Your task to perform on an android device: Search for sushi restaurants on Maps Image 0: 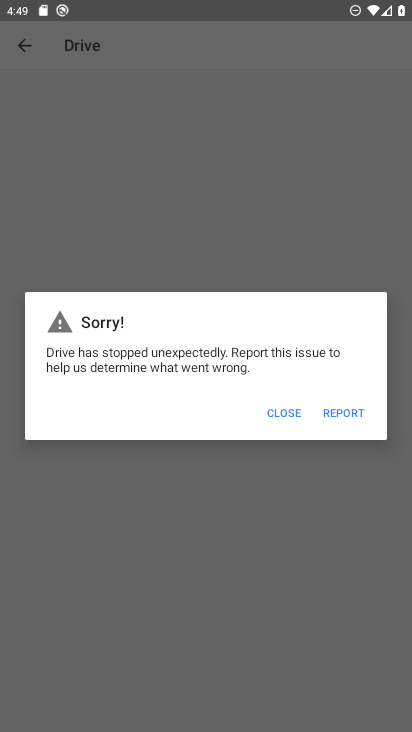
Step 0: press home button
Your task to perform on an android device: Search for sushi restaurants on Maps Image 1: 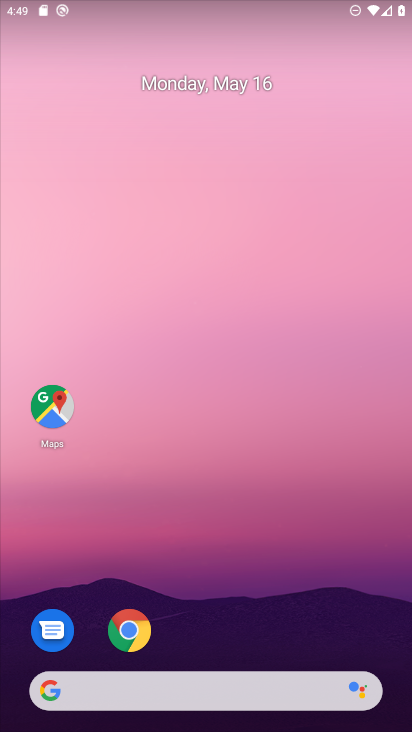
Step 1: click (43, 409)
Your task to perform on an android device: Search for sushi restaurants on Maps Image 2: 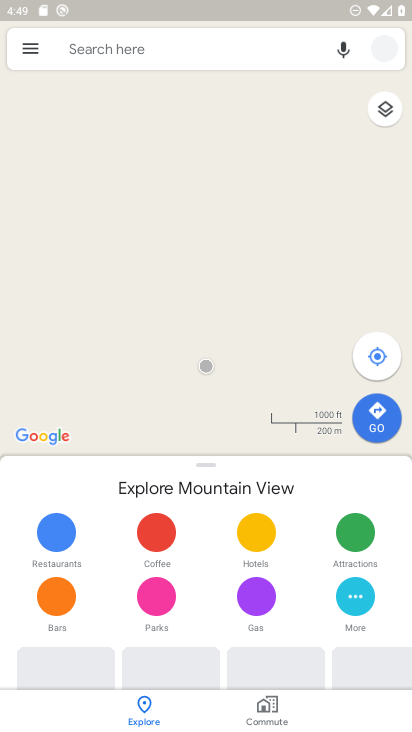
Step 2: click (74, 38)
Your task to perform on an android device: Search for sushi restaurants on Maps Image 3: 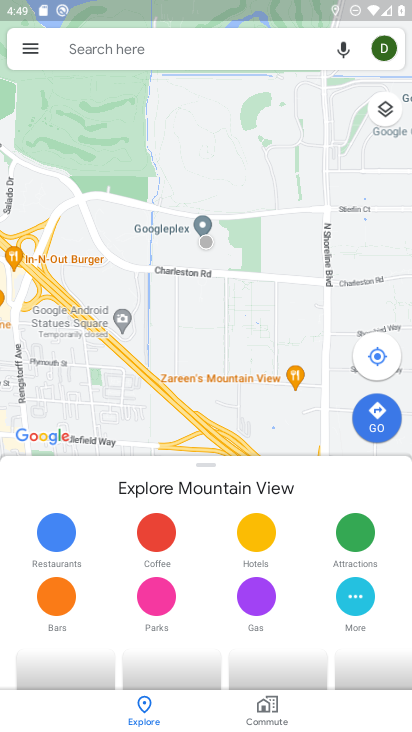
Step 3: click (74, 38)
Your task to perform on an android device: Search for sushi restaurants on Maps Image 4: 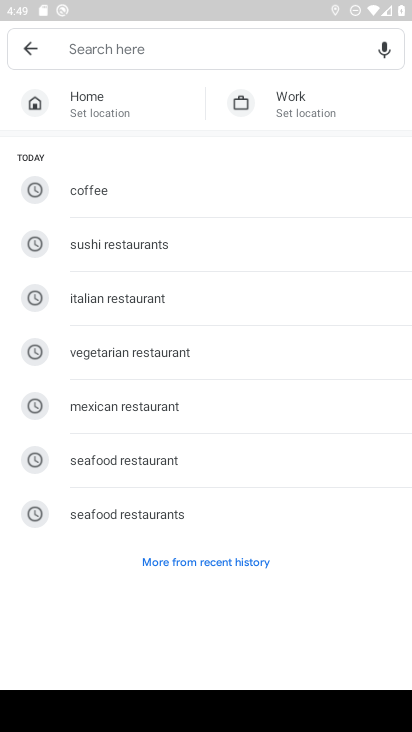
Step 4: type "sushi restaurants "
Your task to perform on an android device: Search for sushi restaurants on Maps Image 5: 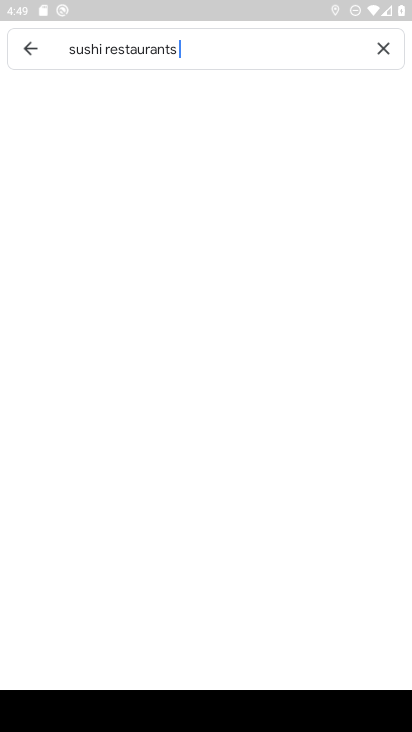
Step 5: type ""
Your task to perform on an android device: Search for sushi restaurants on Maps Image 6: 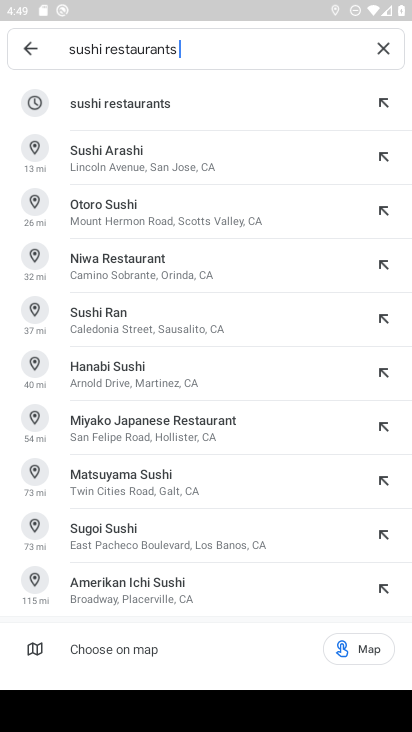
Step 6: click (77, 91)
Your task to perform on an android device: Search for sushi restaurants on Maps Image 7: 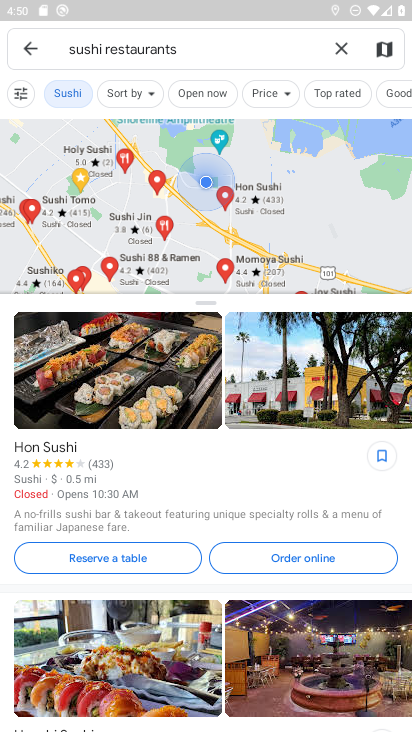
Step 7: task complete